Your task to perform on an android device: delete browsing data in the chrome app Image 0: 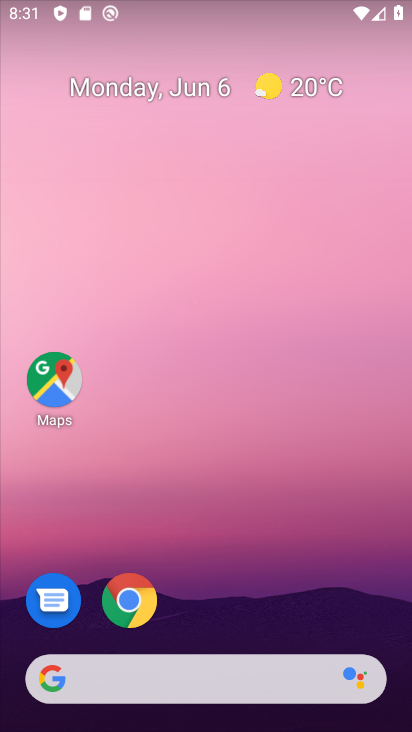
Step 0: click (125, 606)
Your task to perform on an android device: delete browsing data in the chrome app Image 1: 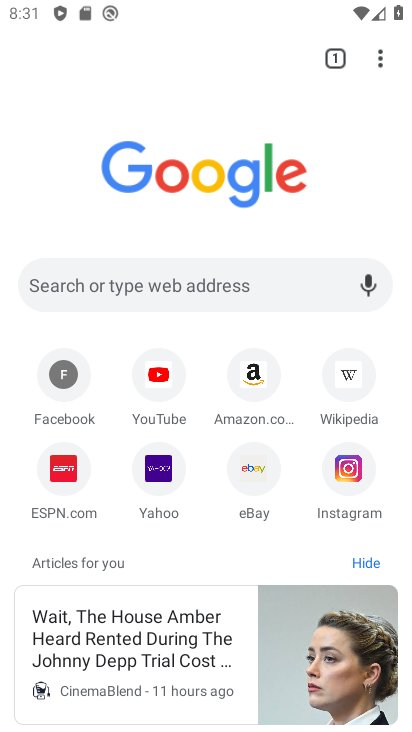
Step 1: click (385, 56)
Your task to perform on an android device: delete browsing data in the chrome app Image 2: 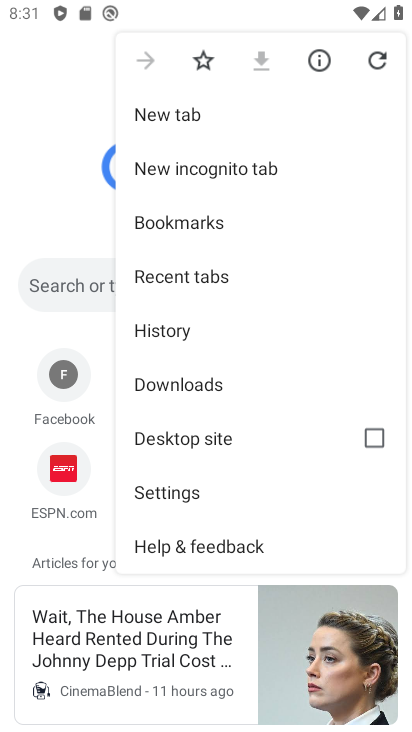
Step 2: click (149, 332)
Your task to perform on an android device: delete browsing data in the chrome app Image 3: 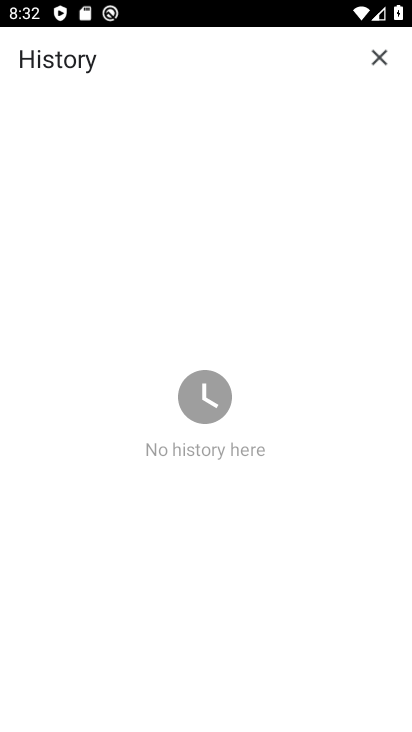
Step 3: task complete